Your task to perform on an android device: What's the weather? Image 0: 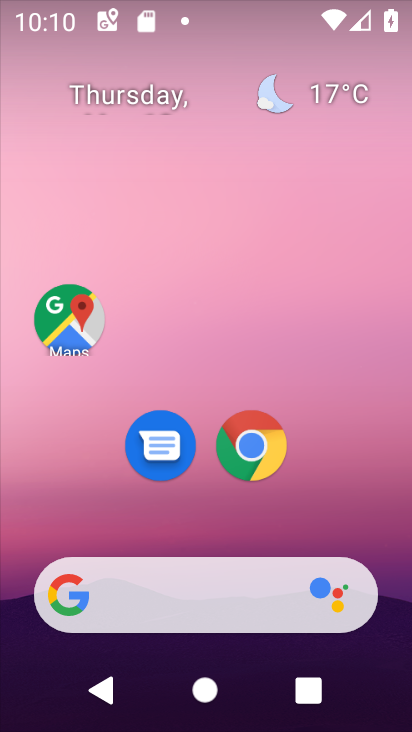
Step 0: drag from (335, 518) to (347, 170)
Your task to perform on an android device: What's the weather? Image 1: 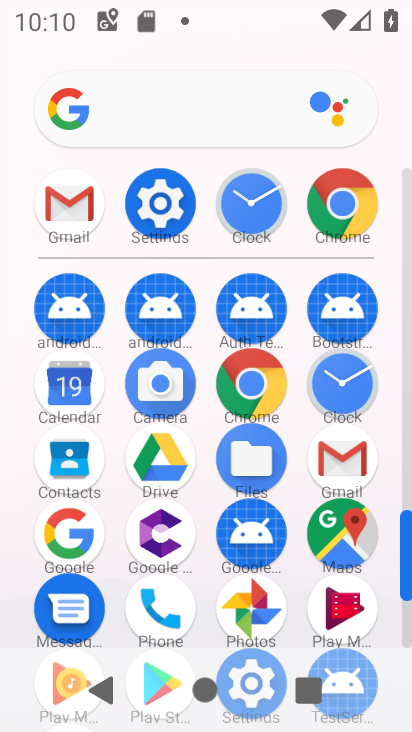
Step 1: click (76, 541)
Your task to perform on an android device: What's the weather? Image 2: 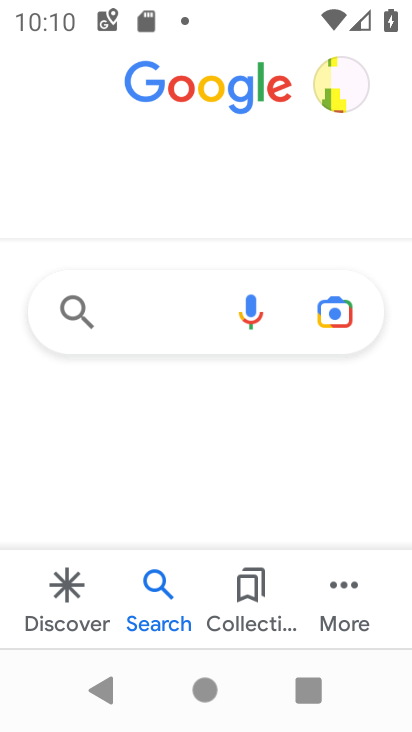
Step 2: click (87, 601)
Your task to perform on an android device: What's the weather? Image 3: 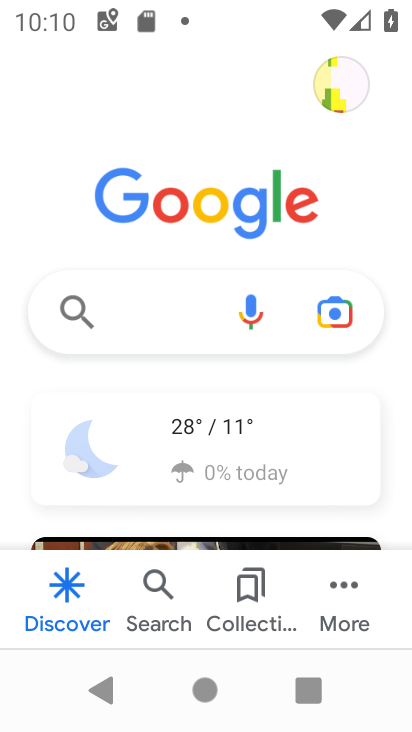
Step 3: click (152, 450)
Your task to perform on an android device: What's the weather? Image 4: 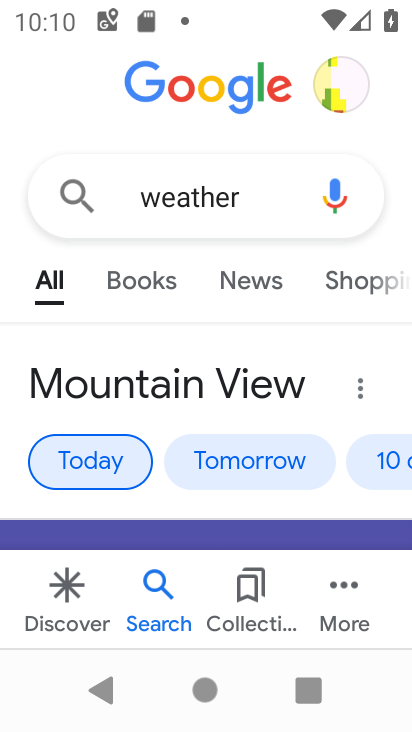
Step 4: task complete